Your task to perform on an android device: Check the news Image 0: 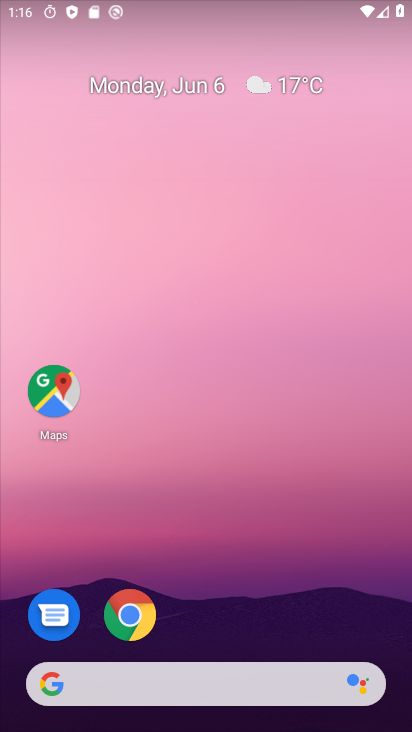
Step 0: drag from (218, 629) to (113, 12)
Your task to perform on an android device: Check the news Image 1: 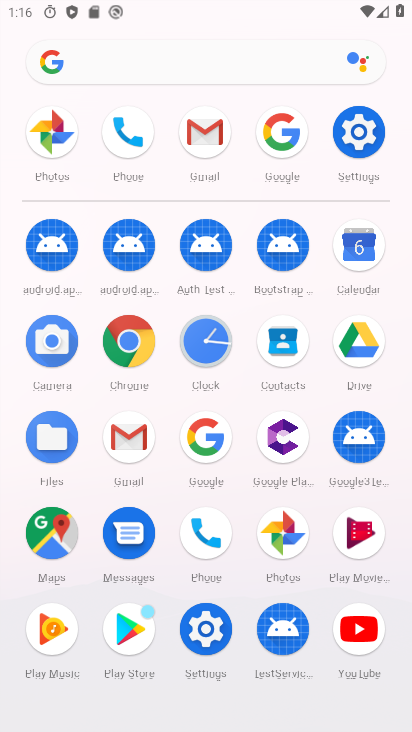
Step 1: click (164, 90)
Your task to perform on an android device: Check the news Image 2: 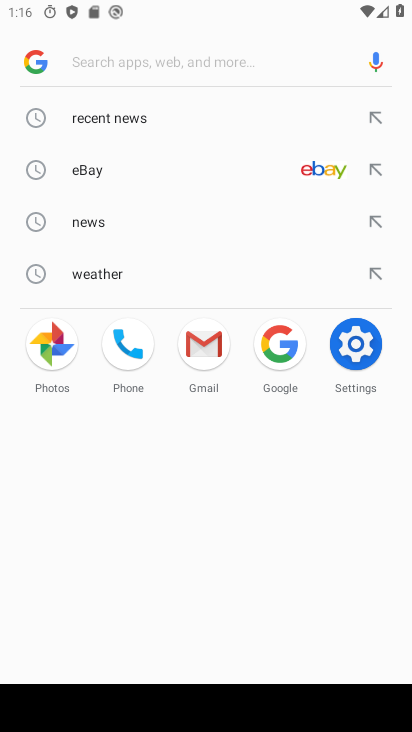
Step 2: click (107, 231)
Your task to perform on an android device: Check the news Image 3: 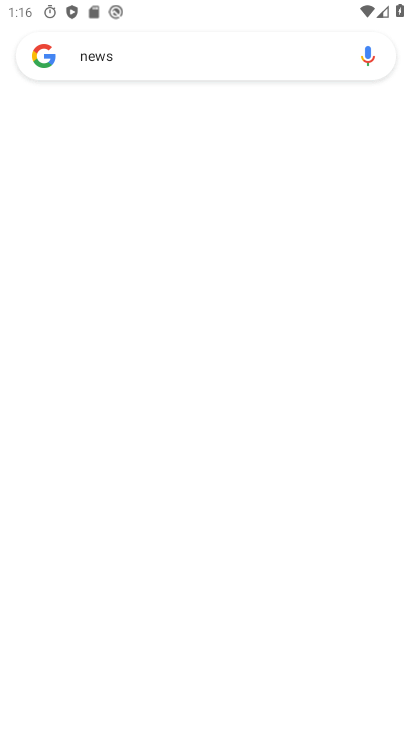
Step 3: task complete